Your task to perform on an android device: Go to eBay Image 0: 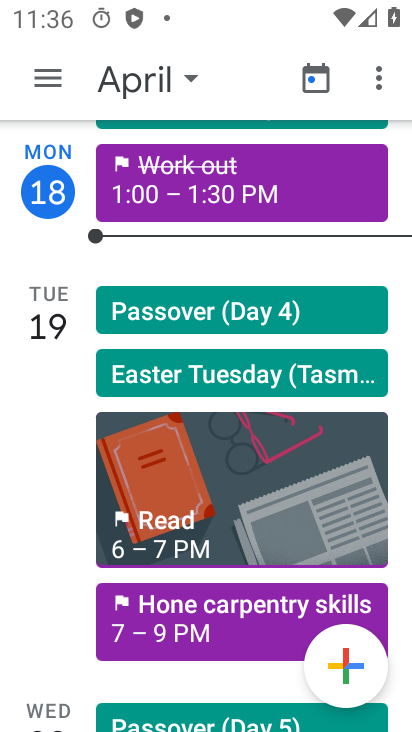
Step 0: press home button
Your task to perform on an android device: Go to eBay Image 1: 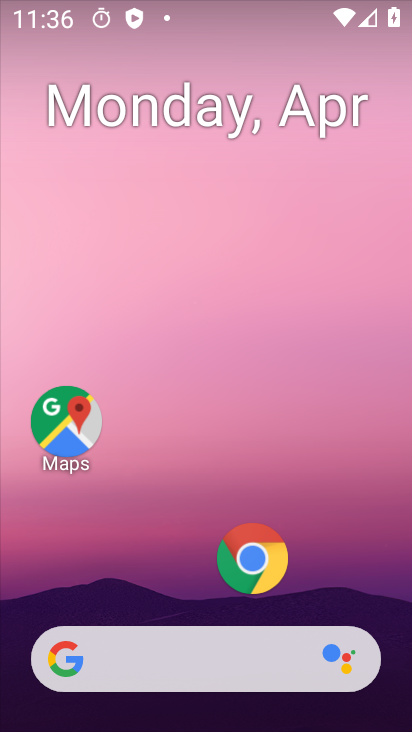
Step 1: click (265, 565)
Your task to perform on an android device: Go to eBay Image 2: 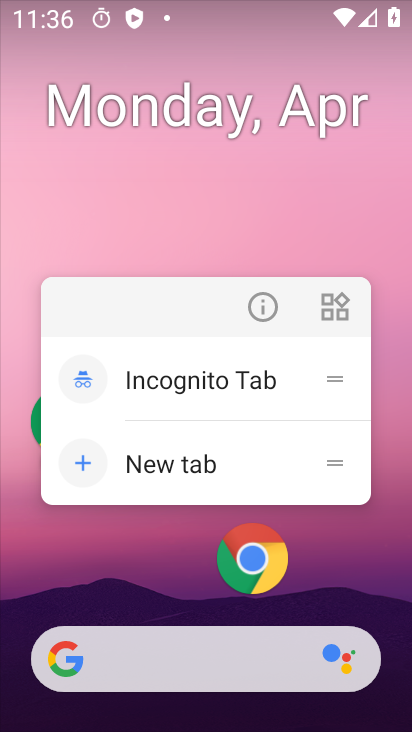
Step 2: click (272, 305)
Your task to perform on an android device: Go to eBay Image 3: 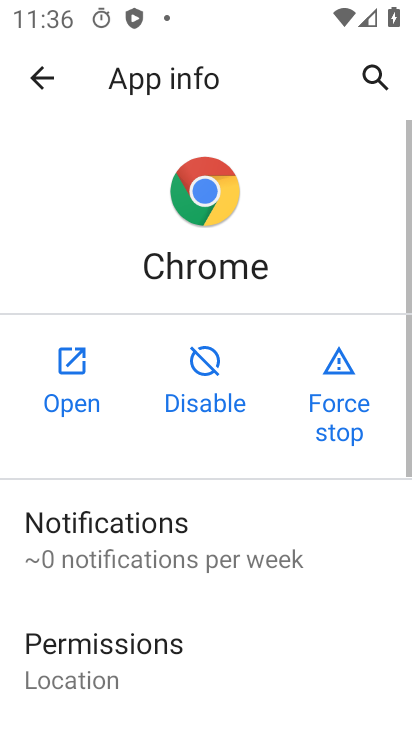
Step 3: click (49, 373)
Your task to perform on an android device: Go to eBay Image 4: 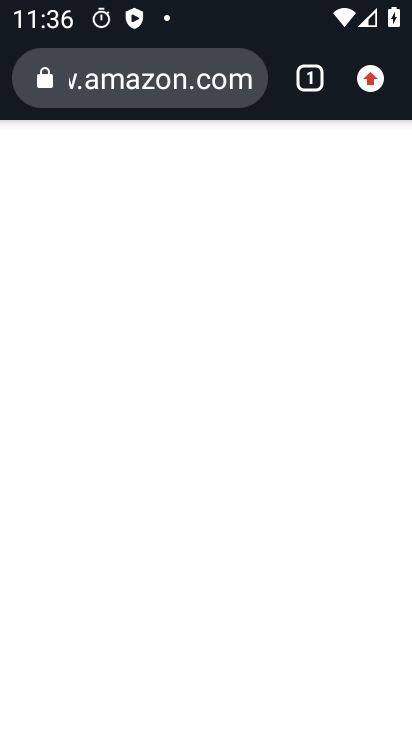
Step 4: click (139, 92)
Your task to perform on an android device: Go to eBay Image 5: 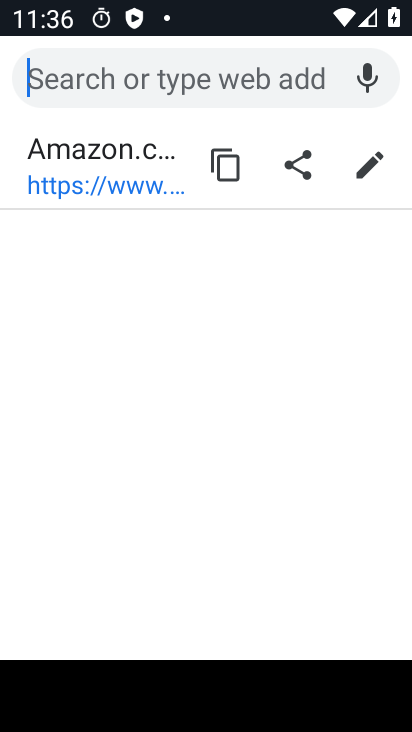
Step 5: type "eBay"
Your task to perform on an android device: Go to eBay Image 6: 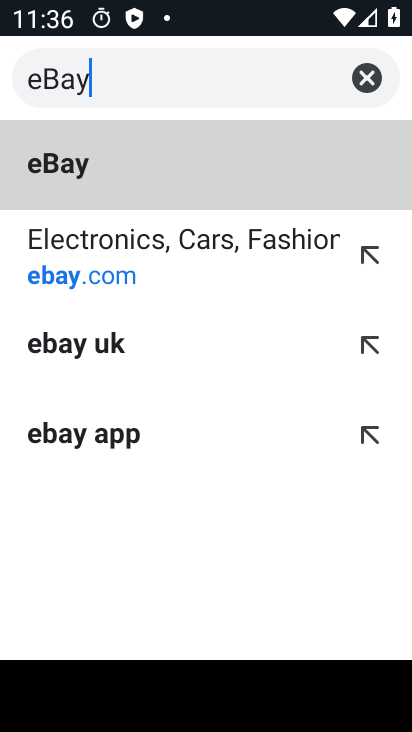
Step 6: click (104, 172)
Your task to perform on an android device: Go to eBay Image 7: 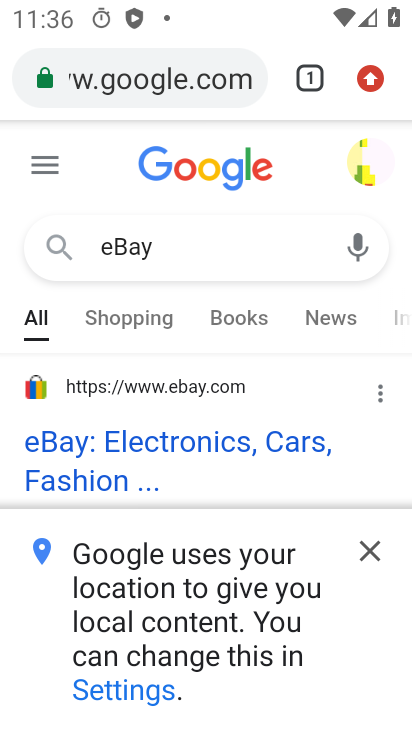
Step 7: task complete